Your task to perform on an android device: Open the calendar app, open the side menu, and click the "Day" option Image 0: 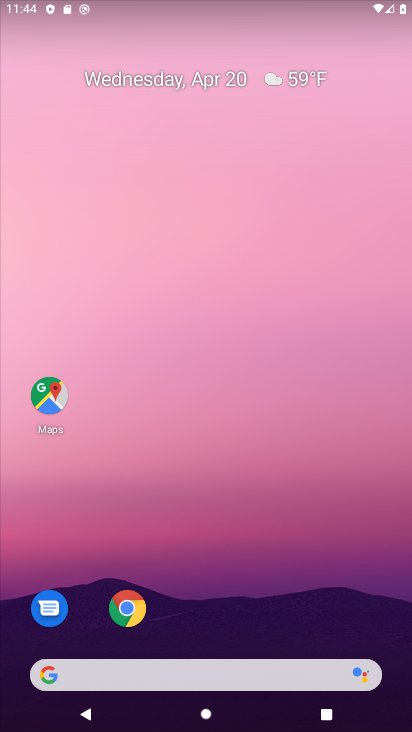
Step 0: drag from (282, 591) to (265, 126)
Your task to perform on an android device: Open the calendar app, open the side menu, and click the "Day" option Image 1: 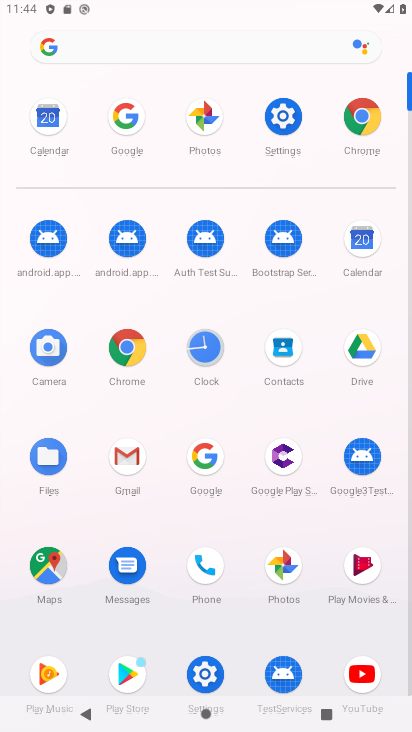
Step 1: click (363, 241)
Your task to perform on an android device: Open the calendar app, open the side menu, and click the "Day" option Image 2: 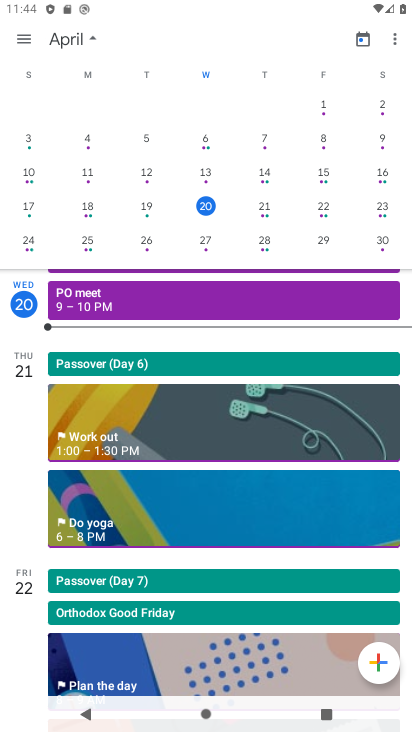
Step 2: click (93, 32)
Your task to perform on an android device: Open the calendar app, open the side menu, and click the "Day" option Image 3: 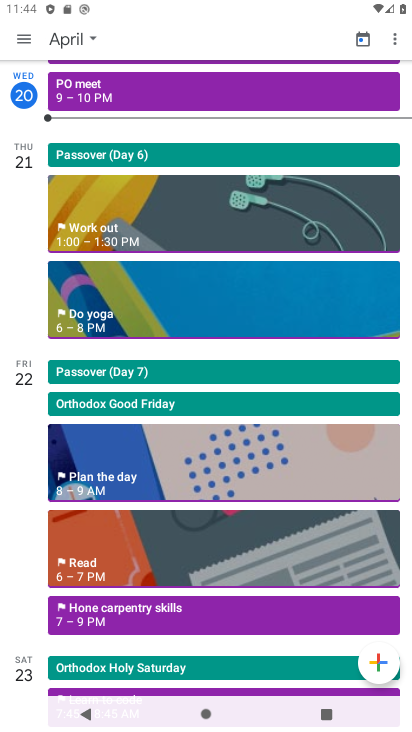
Step 3: click (90, 40)
Your task to perform on an android device: Open the calendar app, open the side menu, and click the "Day" option Image 4: 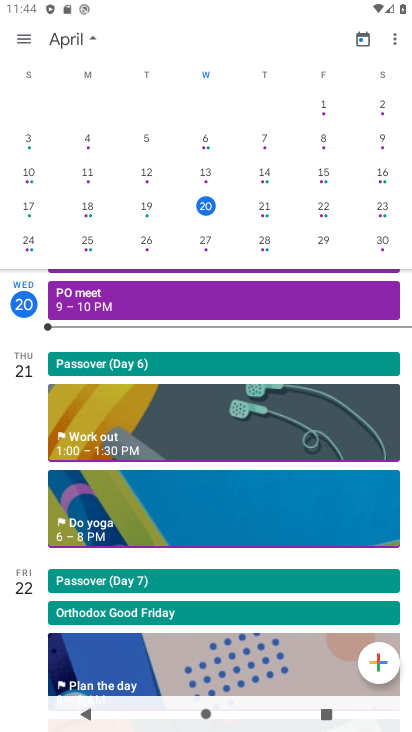
Step 4: click (25, 38)
Your task to perform on an android device: Open the calendar app, open the side menu, and click the "Day" option Image 5: 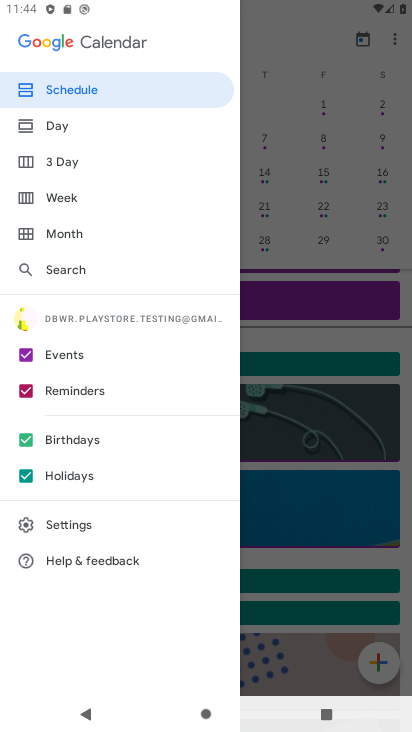
Step 5: click (70, 114)
Your task to perform on an android device: Open the calendar app, open the side menu, and click the "Day" option Image 6: 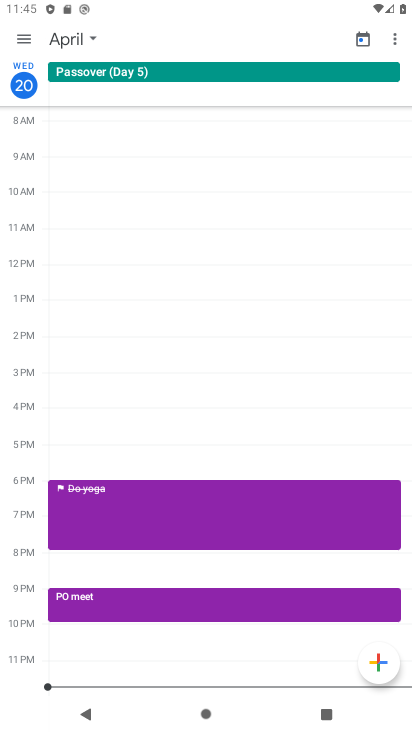
Step 6: task complete